Your task to perform on an android device: turn on improve location accuracy Image 0: 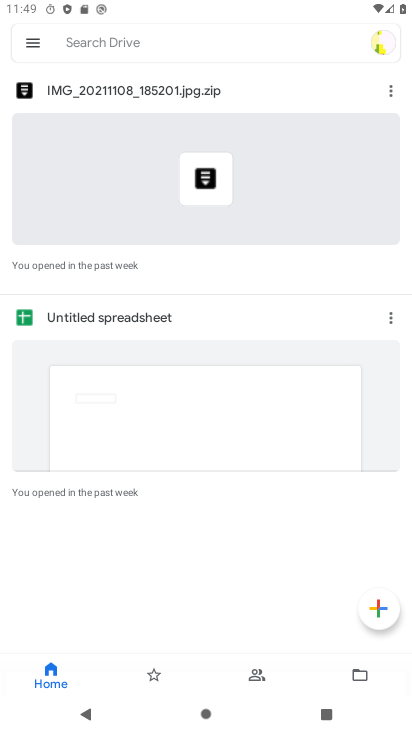
Step 0: press home button
Your task to perform on an android device: turn on improve location accuracy Image 1: 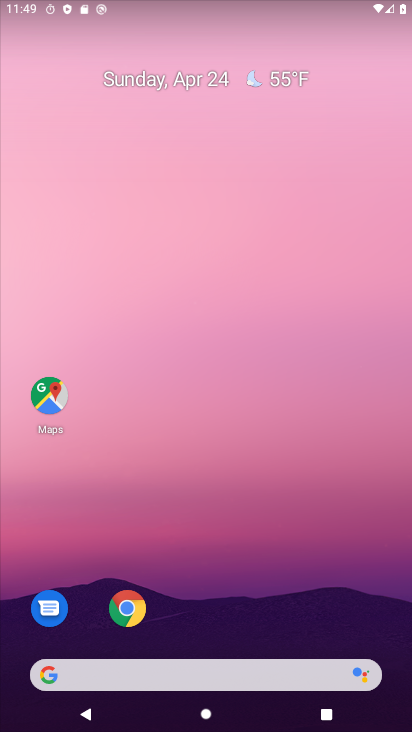
Step 1: drag from (213, 529) to (343, 90)
Your task to perform on an android device: turn on improve location accuracy Image 2: 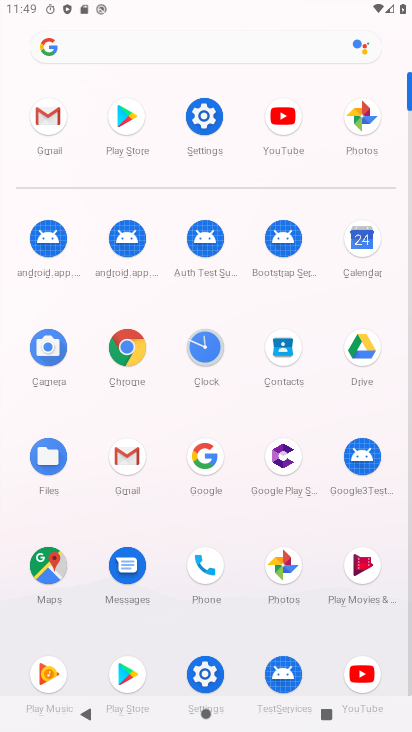
Step 2: click (207, 113)
Your task to perform on an android device: turn on improve location accuracy Image 3: 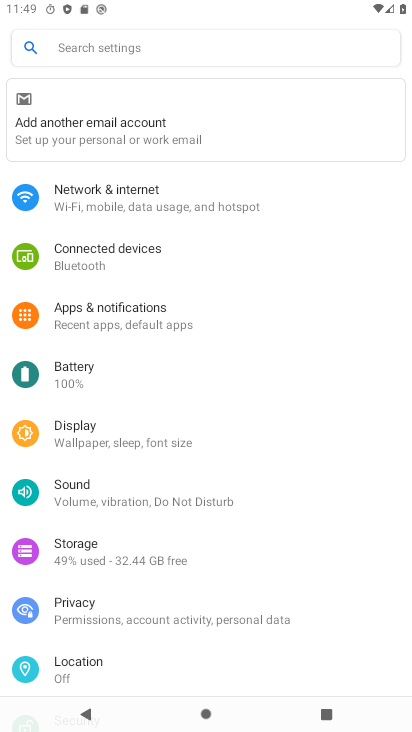
Step 3: click (95, 660)
Your task to perform on an android device: turn on improve location accuracy Image 4: 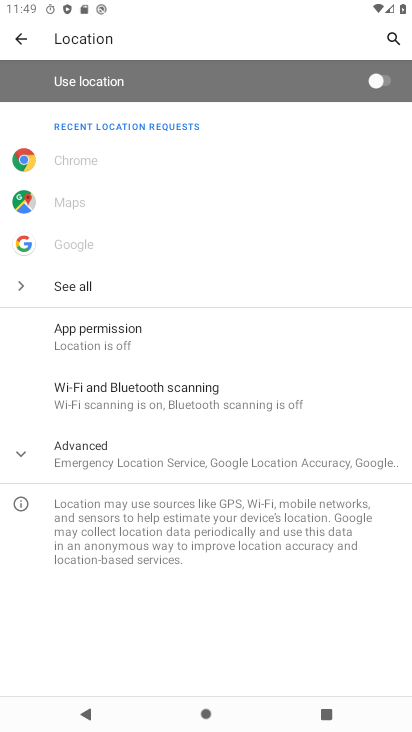
Step 4: click (158, 457)
Your task to perform on an android device: turn on improve location accuracy Image 5: 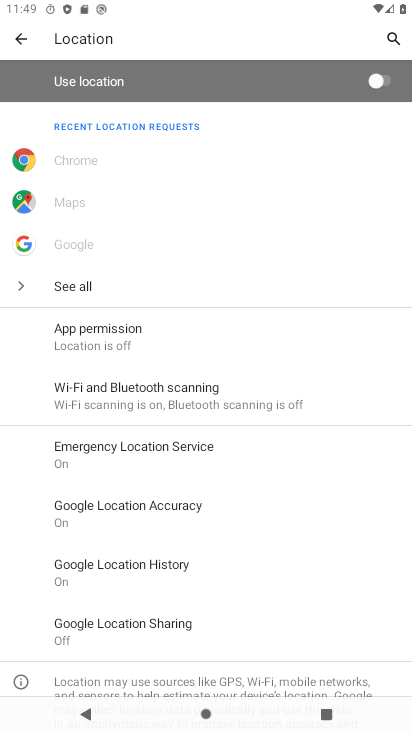
Step 5: click (150, 506)
Your task to perform on an android device: turn on improve location accuracy Image 6: 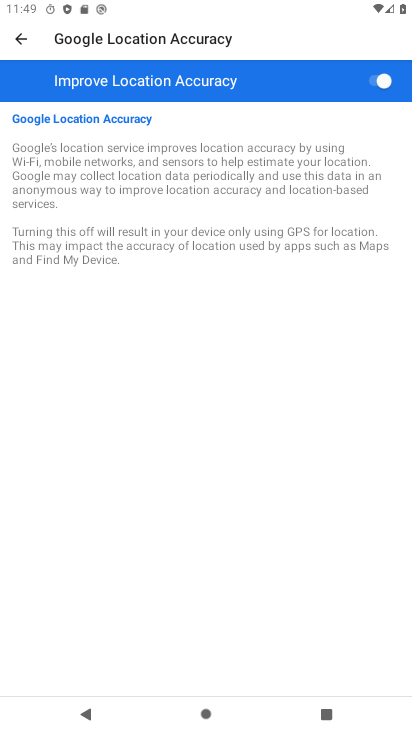
Step 6: task complete